Your task to perform on an android device: Go to calendar. Show me events next week Image 0: 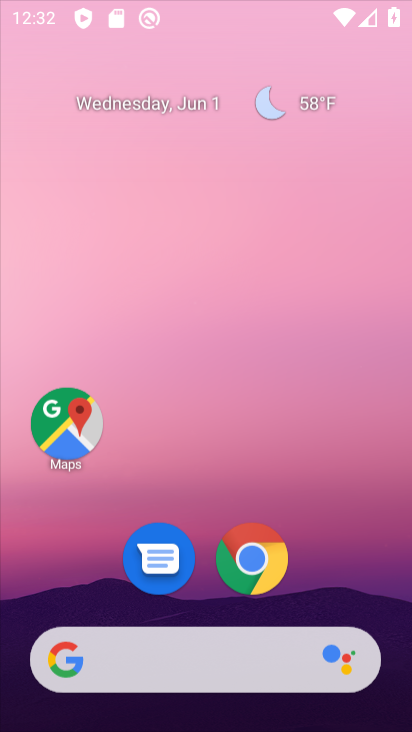
Step 0: click (303, 386)
Your task to perform on an android device: Go to calendar. Show me events next week Image 1: 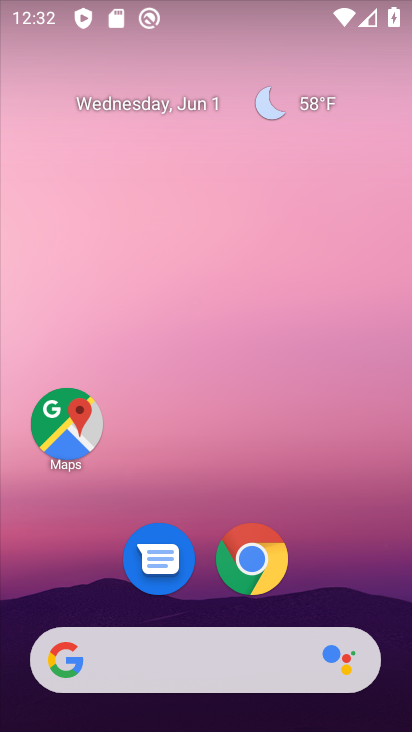
Step 1: drag from (390, 657) to (339, 7)
Your task to perform on an android device: Go to calendar. Show me events next week Image 2: 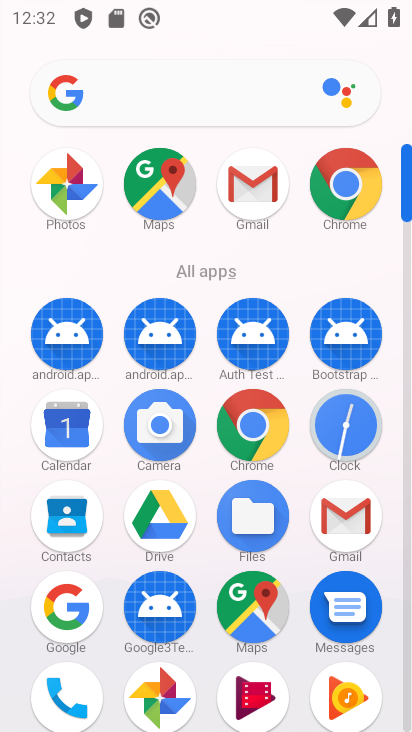
Step 2: click (72, 436)
Your task to perform on an android device: Go to calendar. Show me events next week Image 3: 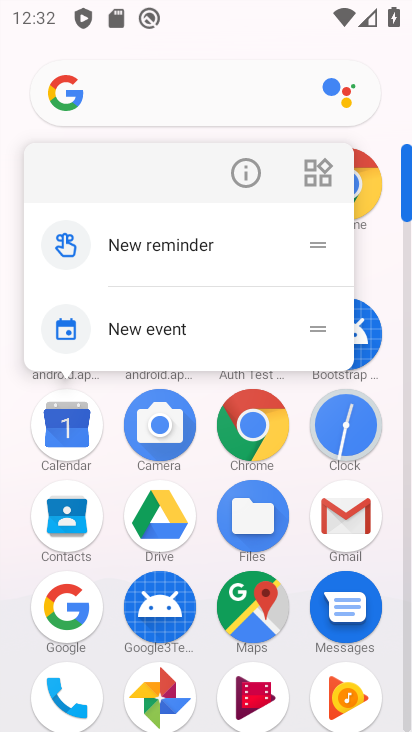
Step 3: click (70, 426)
Your task to perform on an android device: Go to calendar. Show me events next week Image 4: 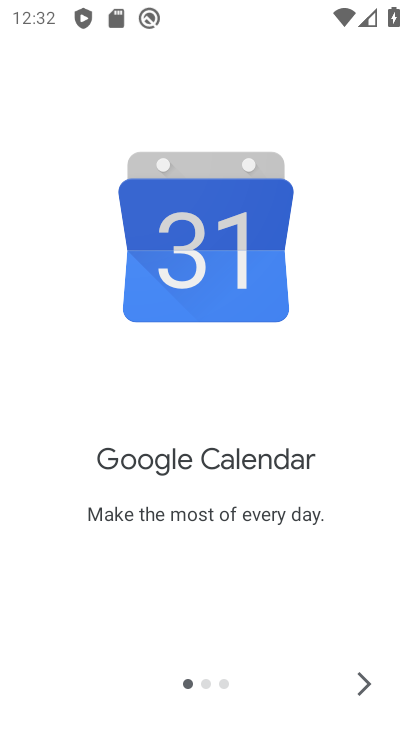
Step 4: click (355, 678)
Your task to perform on an android device: Go to calendar. Show me events next week Image 5: 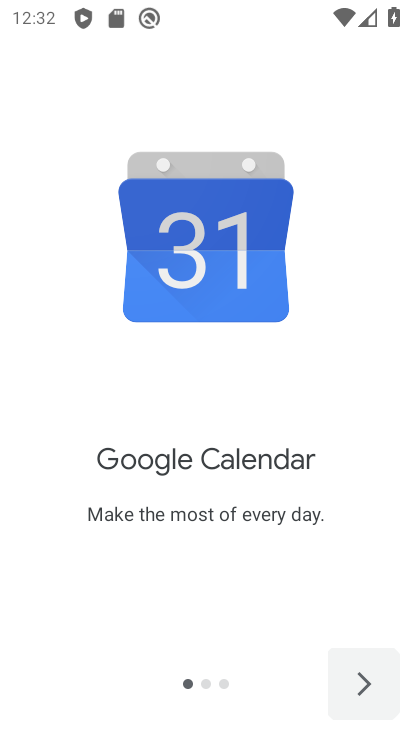
Step 5: click (355, 678)
Your task to perform on an android device: Go to calendar. Show me events next week Image 6: 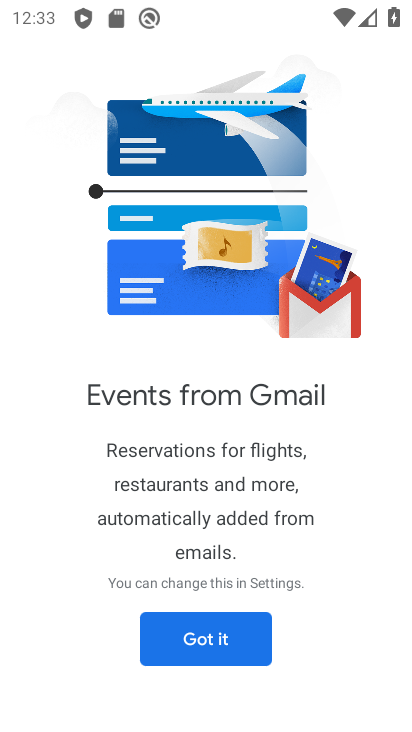
Step 6: click (174, 652)
Your task to perform on an android device: Go to calendar. Show me events next week Image 7: 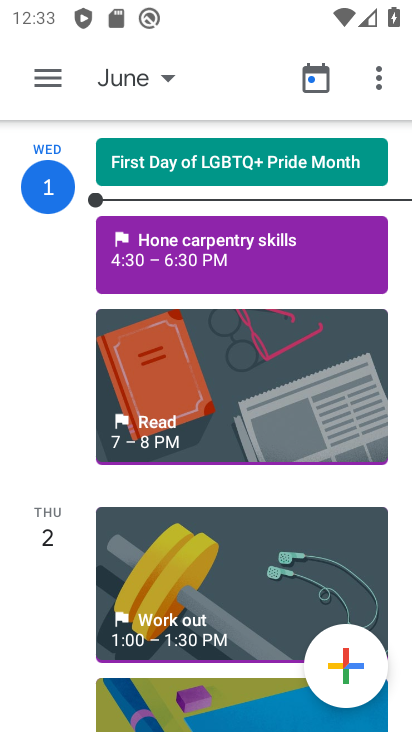
Step 7: click (167, 78)
Your task to perform on an android device: Go to calendar. Show me events next week Image 8: 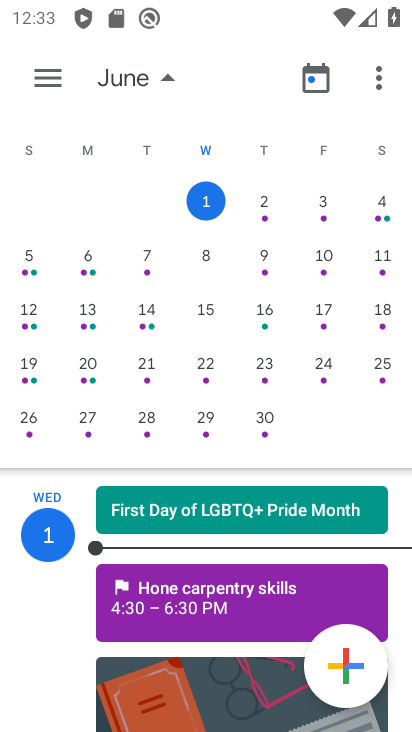
Step 8: click (202, 253)
Your task to perform on an android device: Go to calendar. Show me events next week Image 9: 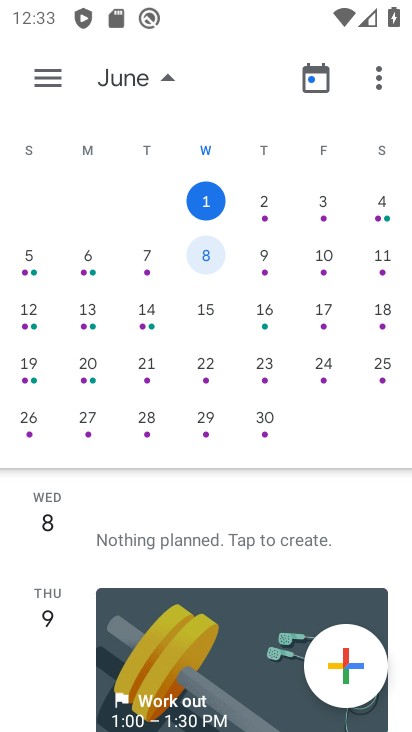
Step 9: click (44, 71)
Your task to perform on an android device: Go to calendar. Show me events next week Image 10: 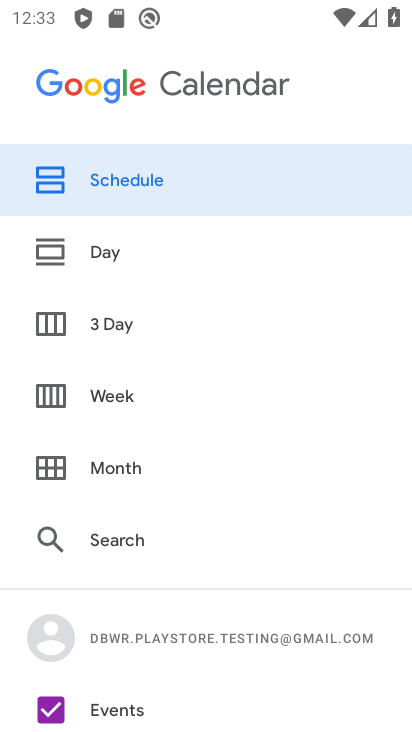
Step 10: click (106, 388)
Your task to perform on an android device: Go to calendar. Show me events next week Image 11: 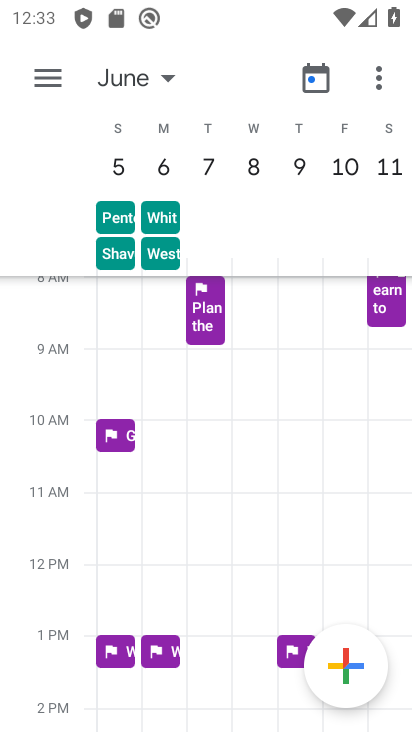
Step 11: click (57, 73)
Your task to perform on an android device: Go to calendar. Show me events next week Image 12: 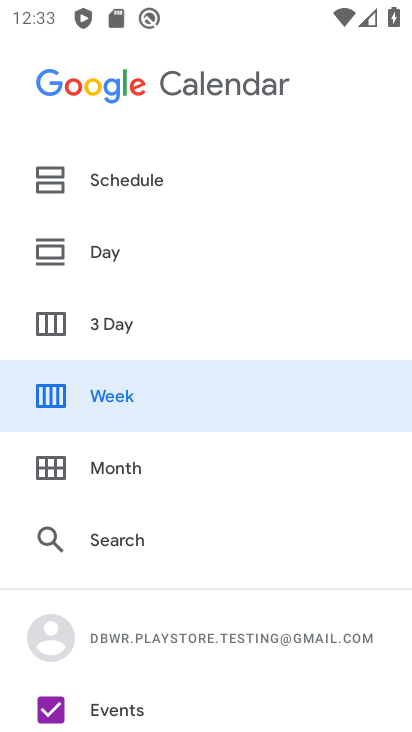
Step 12: click (99, 183)
Your task to perform on an android device: Go to calendar. Show me events next week Image 13: 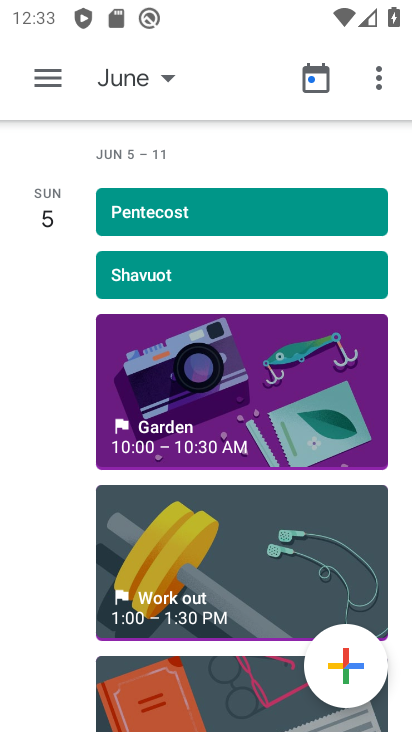
Step 13: task complete